Your task to perform on an android device: add a contact in the contacts app Image 0: 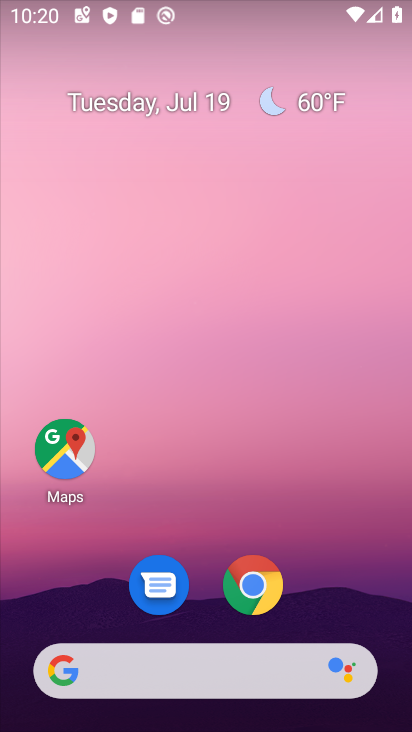
Step 0: drag from (306, 543) to (341, 67)
Your task to perform on an android device: add a contact in the contacts app Image 1: 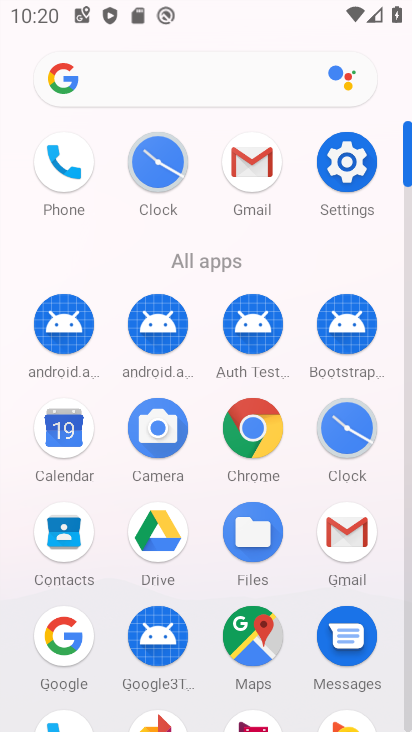
Step 1: click (70, 529)
Your task to perform on an android device: add a contact in the contacts app Image 2: 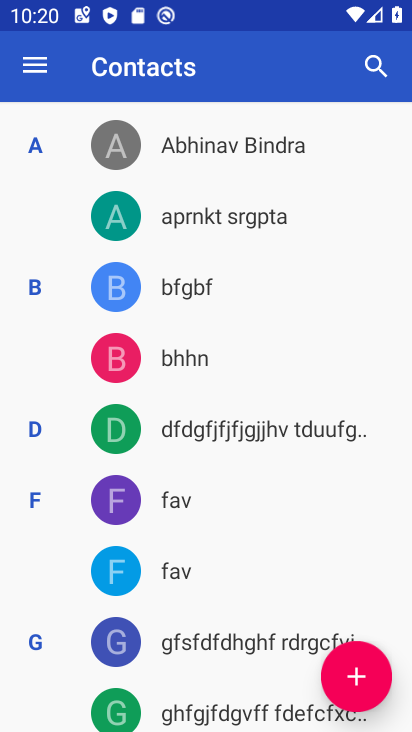
Step 2: click (348, 673)
Your task to perform on an android device: add a contact in the contacts app Image 3: 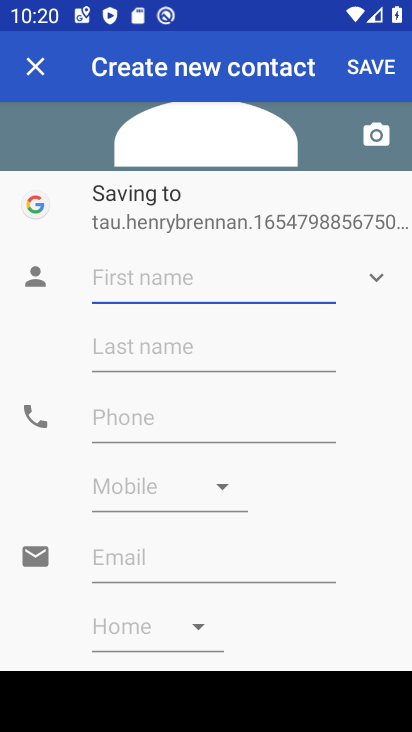
Step 3: type "Saraswati"
Your task to perform on an android device: add a contact in the contacts app Image 4: 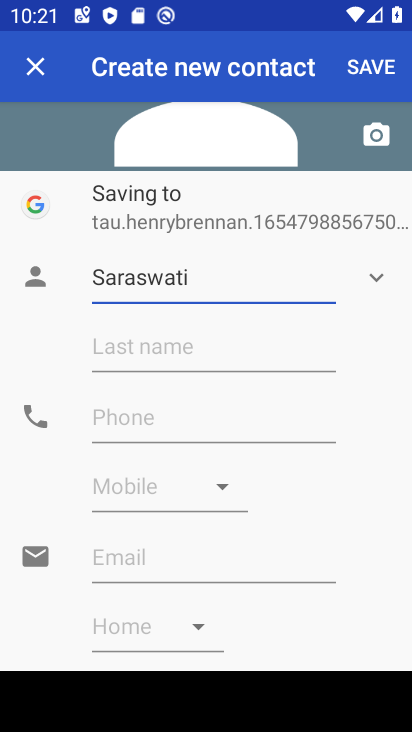
Step 4: click (230, 418)
Your task to perform on an android device: add a contact in the contacts app Image 5: 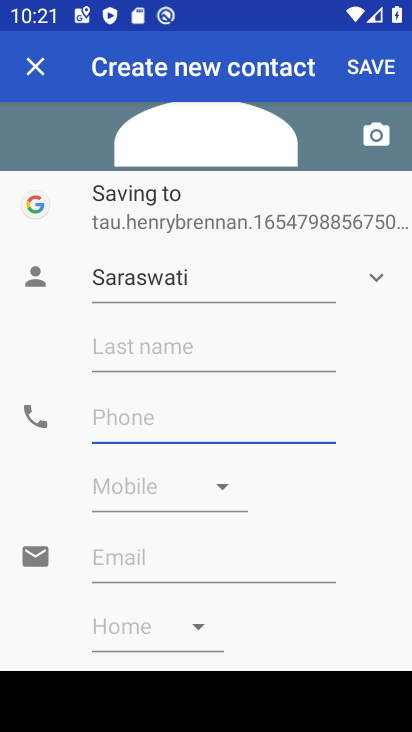
Step 5: type "99977553311"
Your task to perform on an android device: add a contact in the contacts app Image 6: 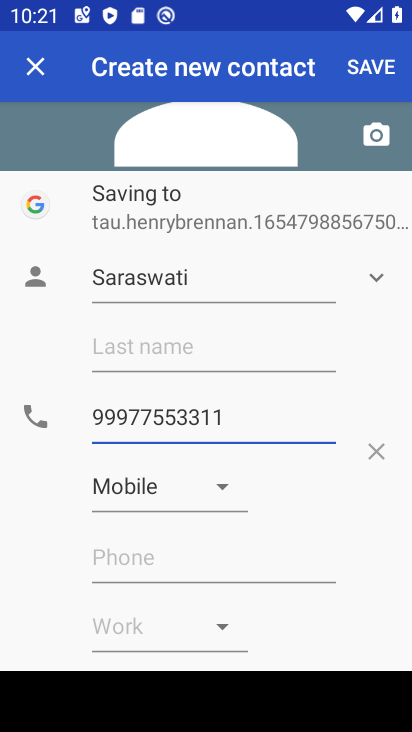
Step 6: click (382, 69)
Your task to perform on an android device: add a contact in the contacts app Image 7: 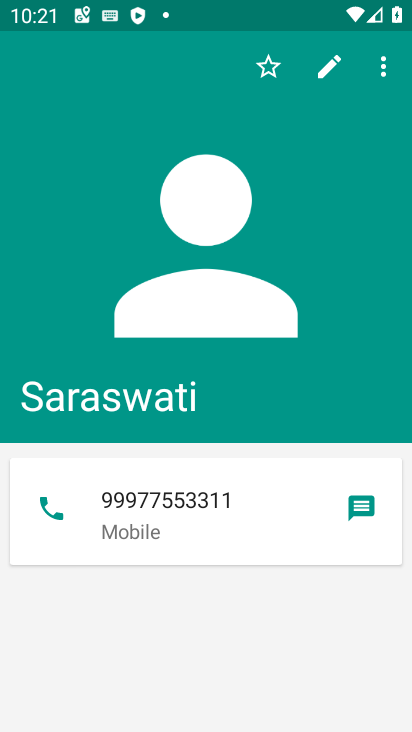
Step 7: task complete